Your task to perform on an android device: Open display settings Image 0: 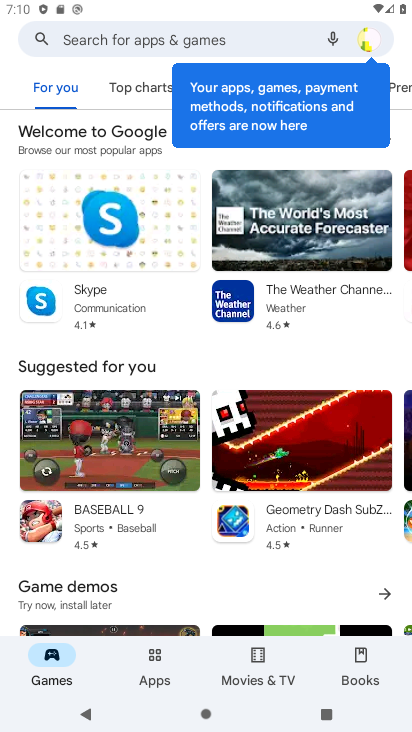
Step 0: press home button
Your task to perform on an android device: Open display settings Image 1: 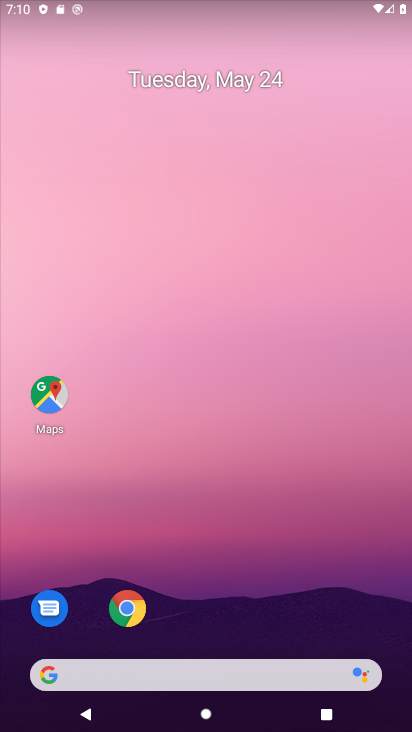
Step 1: drag from (264, 602) to (192, 171)
Your task to perform on an android device: Open display settings Image 2: 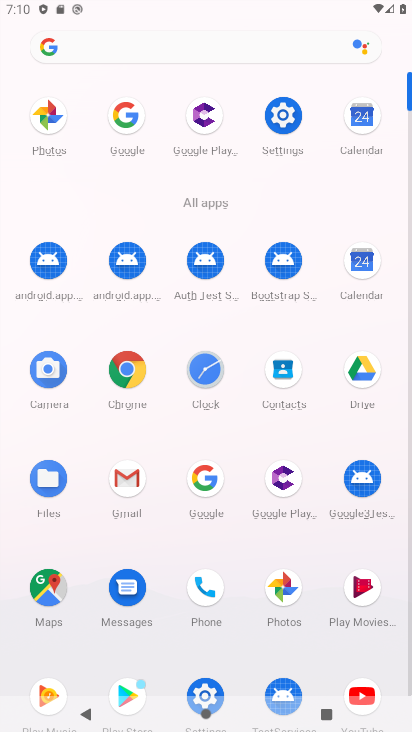
Step 2: click (285, 115)
Your task to perform on an android device: Open display settings Image 3: 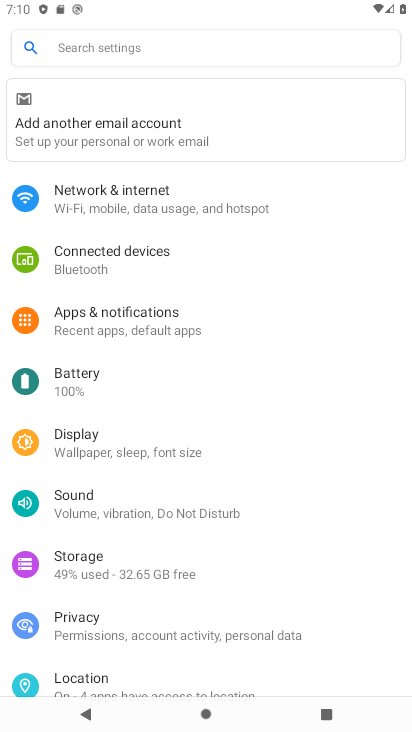
Step 3: click (111, 461)
Your task to perform on an android device: Open display settings Image 4: 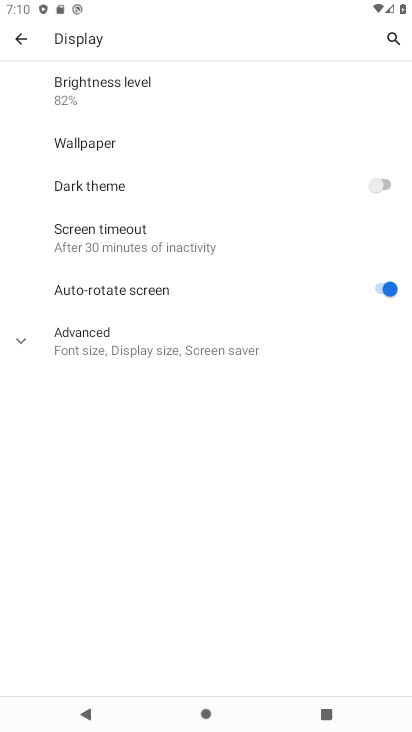
Step 4: task complete